Your task to perform on an android device: Open Chrome and go to settings Image 0: 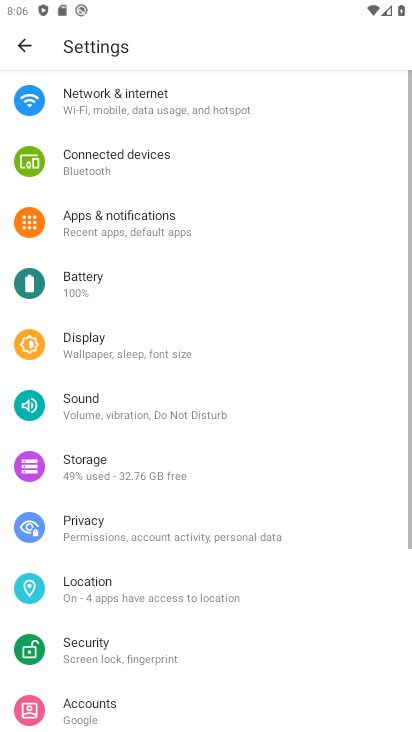
Step 0: press home button
Your task to perform on an android device: Open Chrome and go to settings Image 1: 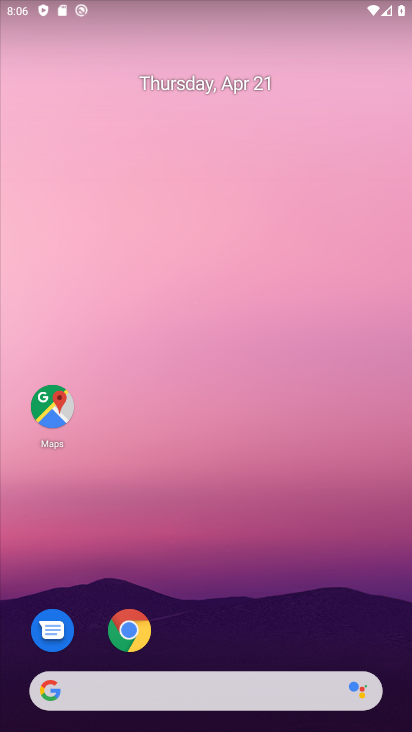
Step 1: click (130, 632)
Your task to perform on an android device: Open Chrome and go to settings Image 2: 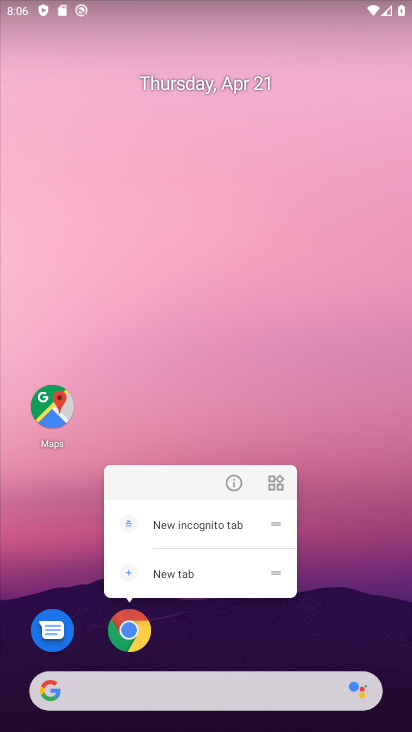
Step 2: click (136, 634)
Your task to perform on an android device: Open Chrome and go to settings Image 3: 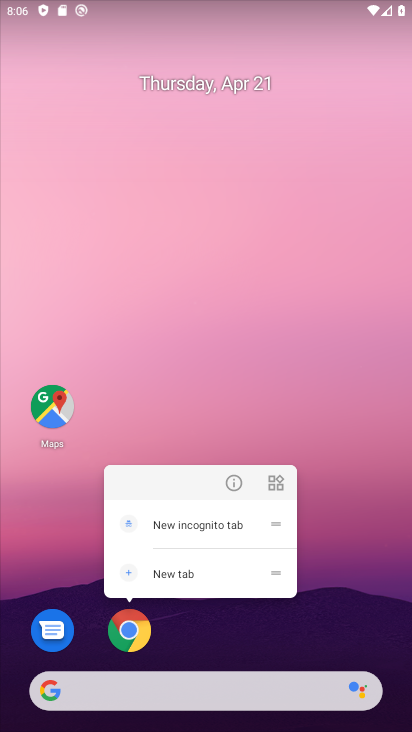
Step 3: click (139, 638)
Your task to perform on an android device: Open Chrome and go to settings Image 4: 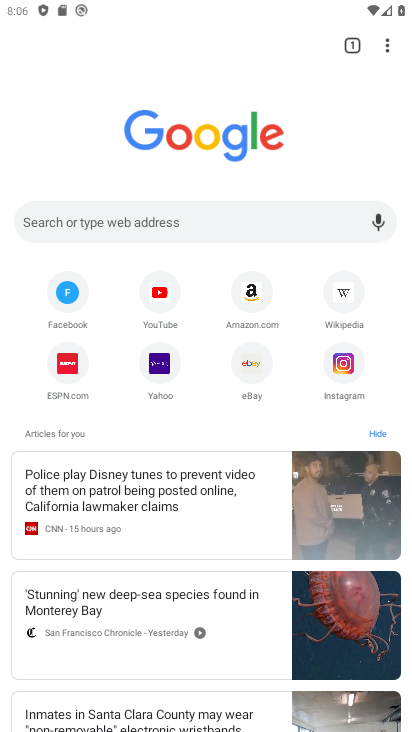
Step 4: click (393, 53)
Your task to perform on an android device: Open Chrome and go to settings Image 5: 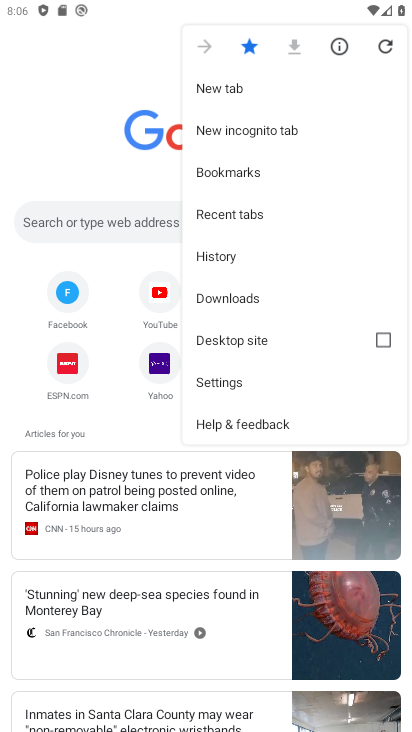
Step 5: click (246, 379)
Your task to perform on an android device: Open Chrome and go to settings Image 6: 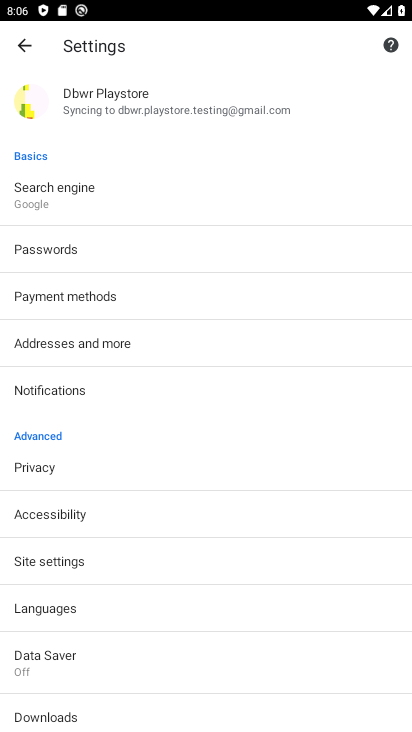
Step 6: task complete